Your task to perform on an android device: toggle show notifications on the lock screen Image 0: 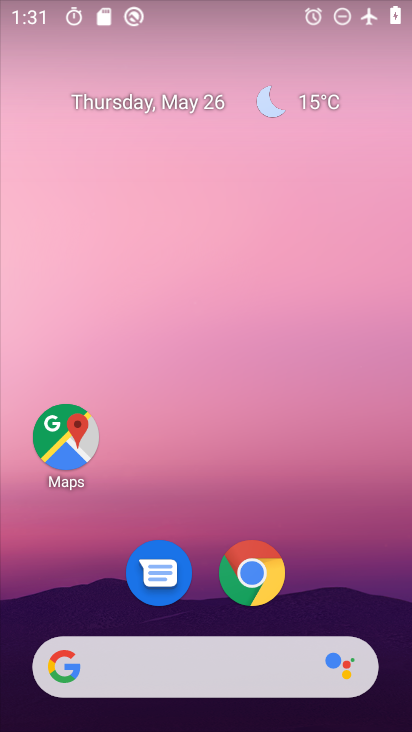
Step 0: drag from (341, 629) to (360, 77)
Your task to perform on an android device: toggle show notifications on the lock screen Image 1: 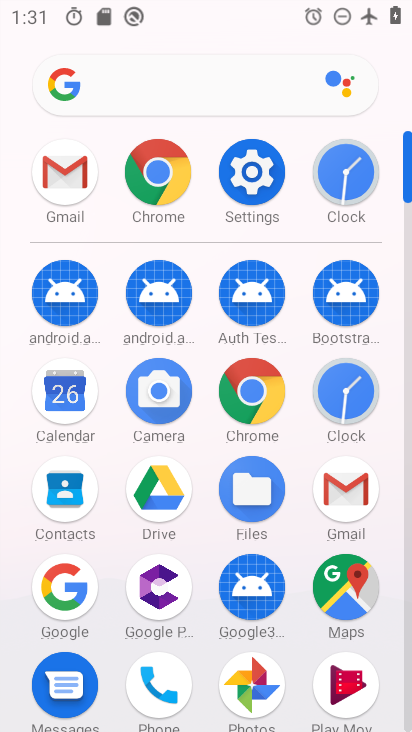
Step 1: click (240, 172)
Your task to perform on an android device: toggle show notifications on the lock screen Image 2: 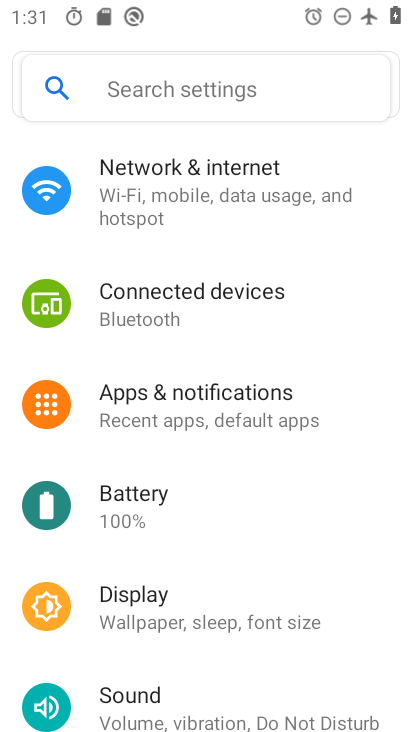
Step 2: click (166, 403)
Your task to perform on an android device: toggle show notifications on the lock screen Image 3: 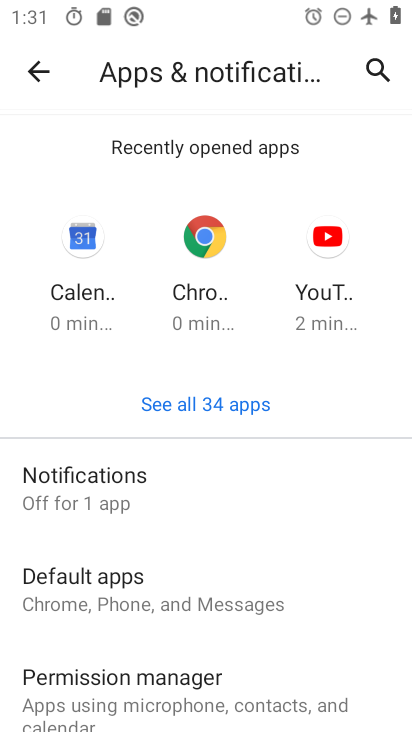
Step 3: click (82, 503)
Your task to perform on an android device: toggle show notifications on the lock screen Image 4: 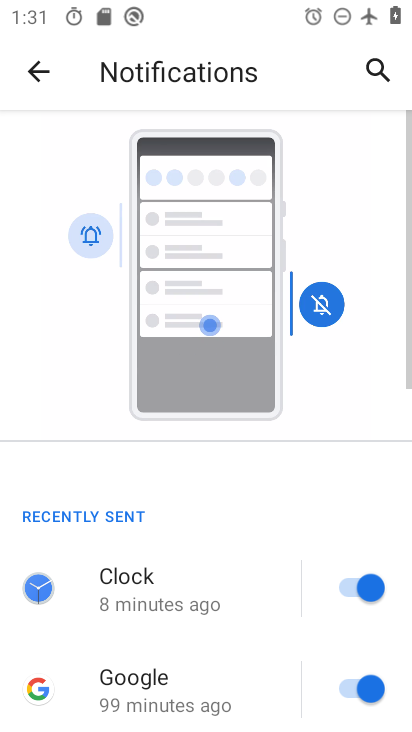
Step 4: drag from (188, 612) to (220, 197)
Your task to perform on an android device: toggle show notifications on the lock screen Image 5: 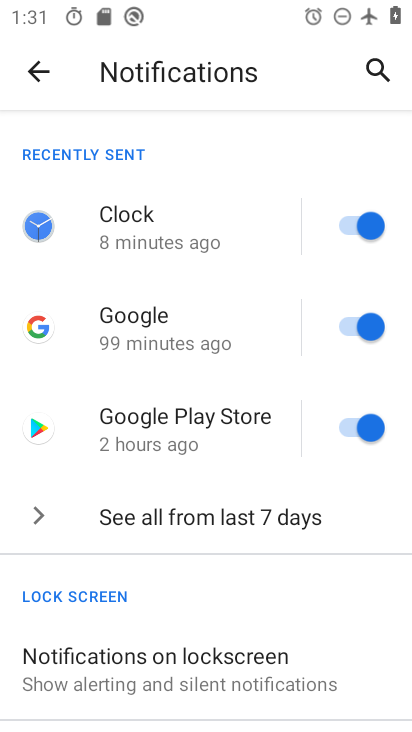
Step 5: drag from (146, 552) to (156, 241)
Your task to perform on an android device: toggle show notifications on the lock screen Image 6: 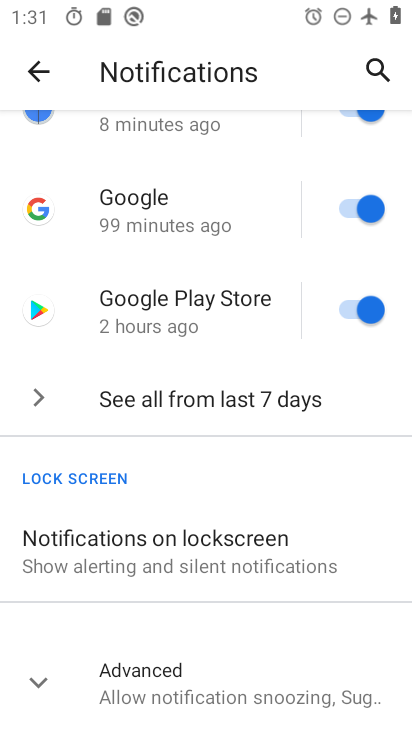
Step 6: click (142, 563)
Your task to perform on an android device: toggle show notifications on the lock screen Image 7: 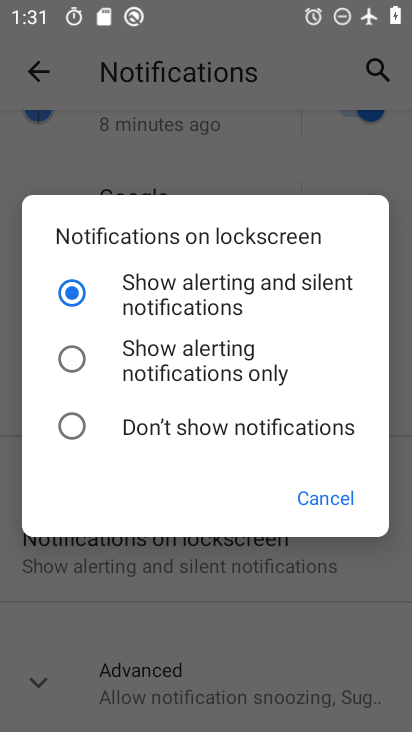
Step 7: click (77, 423)
Your task to perform on an android device: toggle show notifications on the lock screen Image 8: 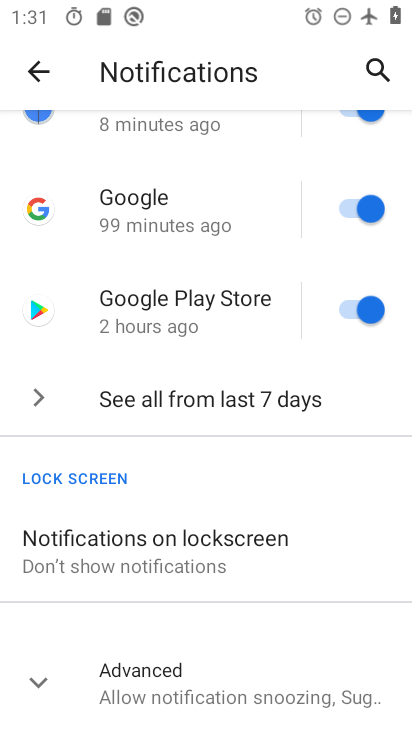
Step 8: task complete